Your task to perform on an android device: turn off improve location accuracy Image 0: 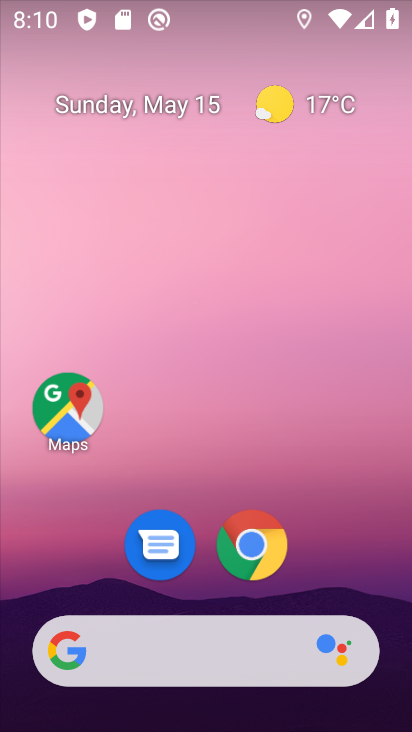
Step 0: drag from (328, 579) to (231, 9)
Your task to perform on an android device: turn off improve location accuracy Image 1: 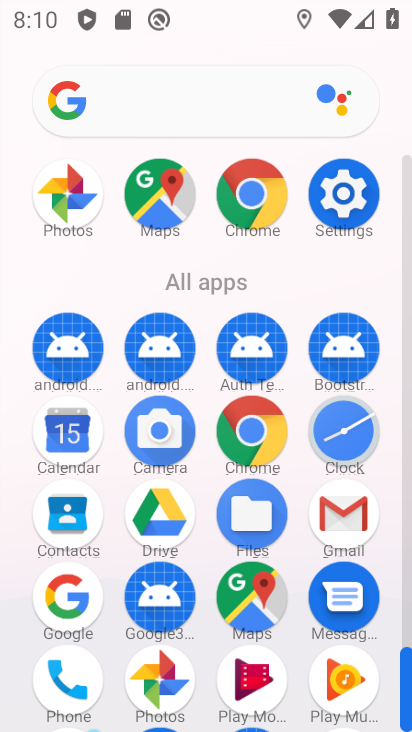
Step 1: click (333, 190)
Your task to perform on an android device: turn off improve location accuracy Image 2: 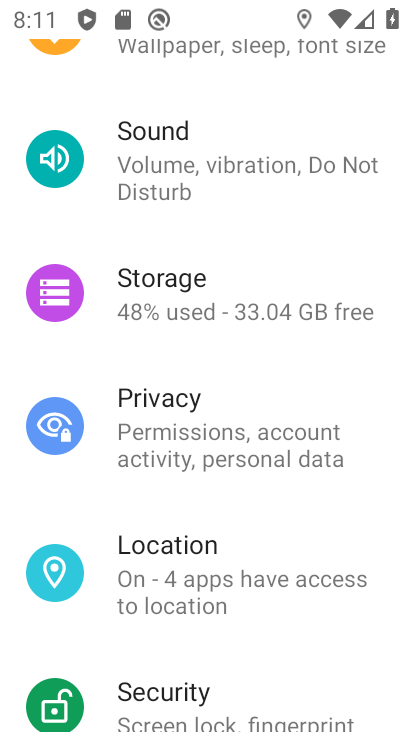
Step 2: click (214, 588)
Your task to perform on an android device: turn off improve location accuracy Image 3: 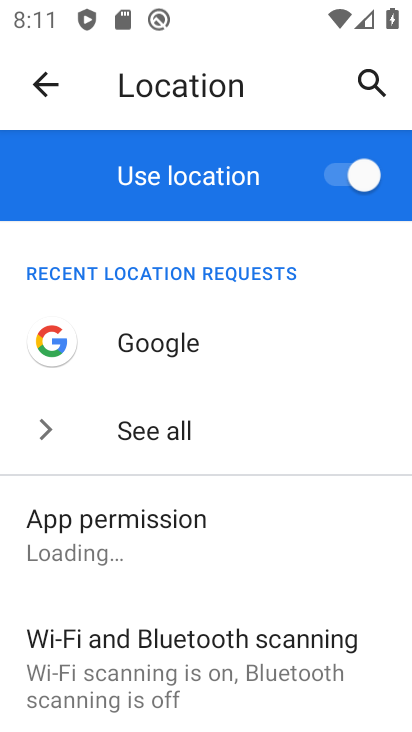
Step 3: drag from (204, 674) to (202, 302)
Your task to perform on an android device: turn off improve location accuracy Image 4: 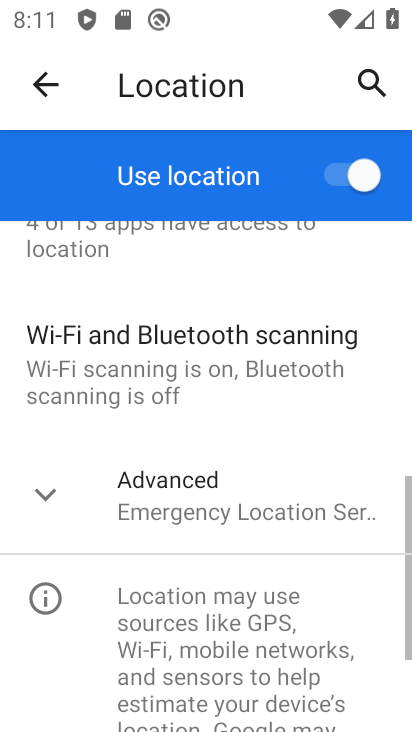
Step 4: click (155, 511)
Your task to perform on an android device: turn off improve location accuracy Image 5: 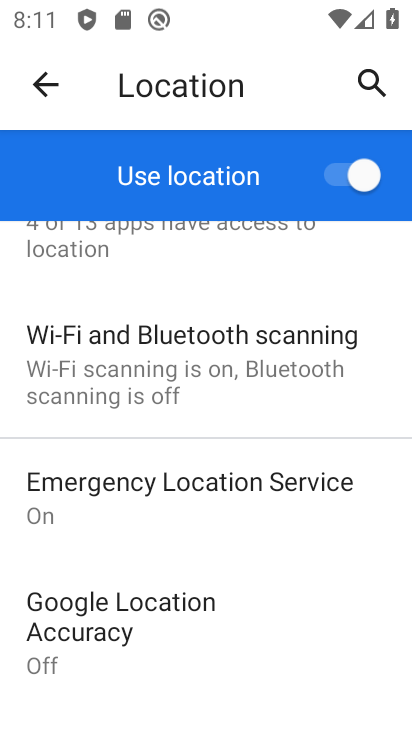
Step 5: click (165, 644)
Your task to perform on an android device: turn off improve location accuracy Image 6: 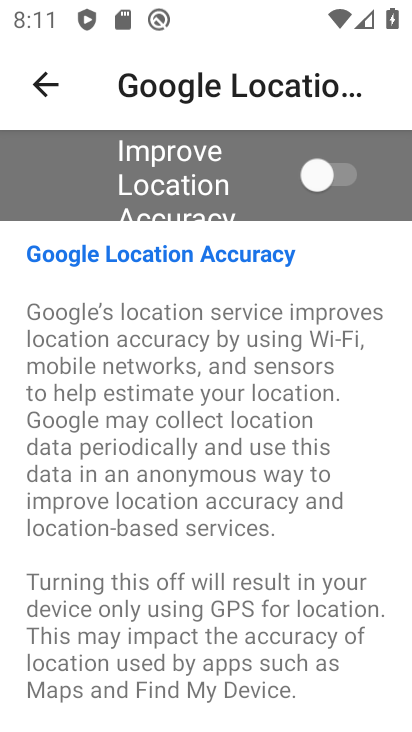
Step 6: task complete